Your task to perform on an android device: Search for razer deathadder on bestbuy.com, select the first entry, add it to the cart, then select checkout. Image 0: 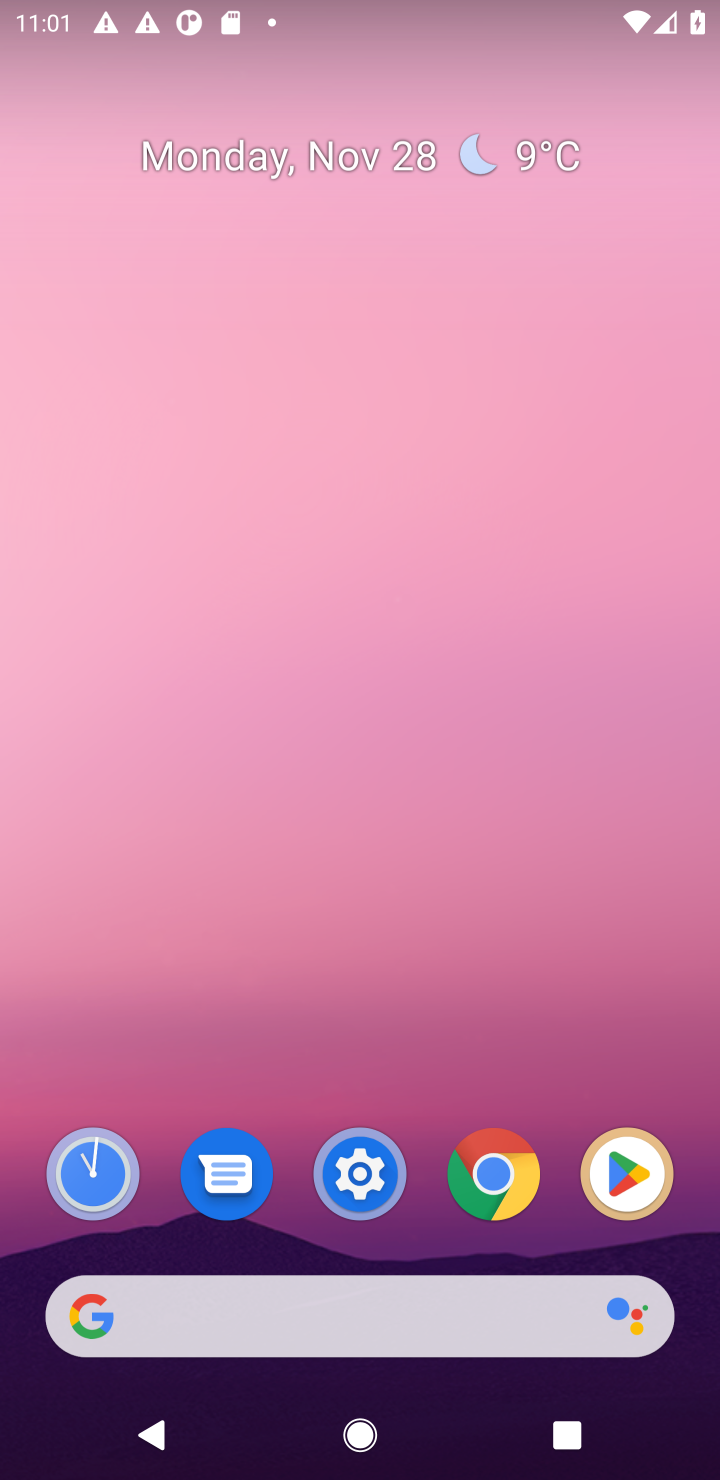
Step 0: press home button
Your task to perform on an android device: Search for razer deathadder on bestbuy.com, select the first entry, add it to the cart, then select checkout. Image 1: 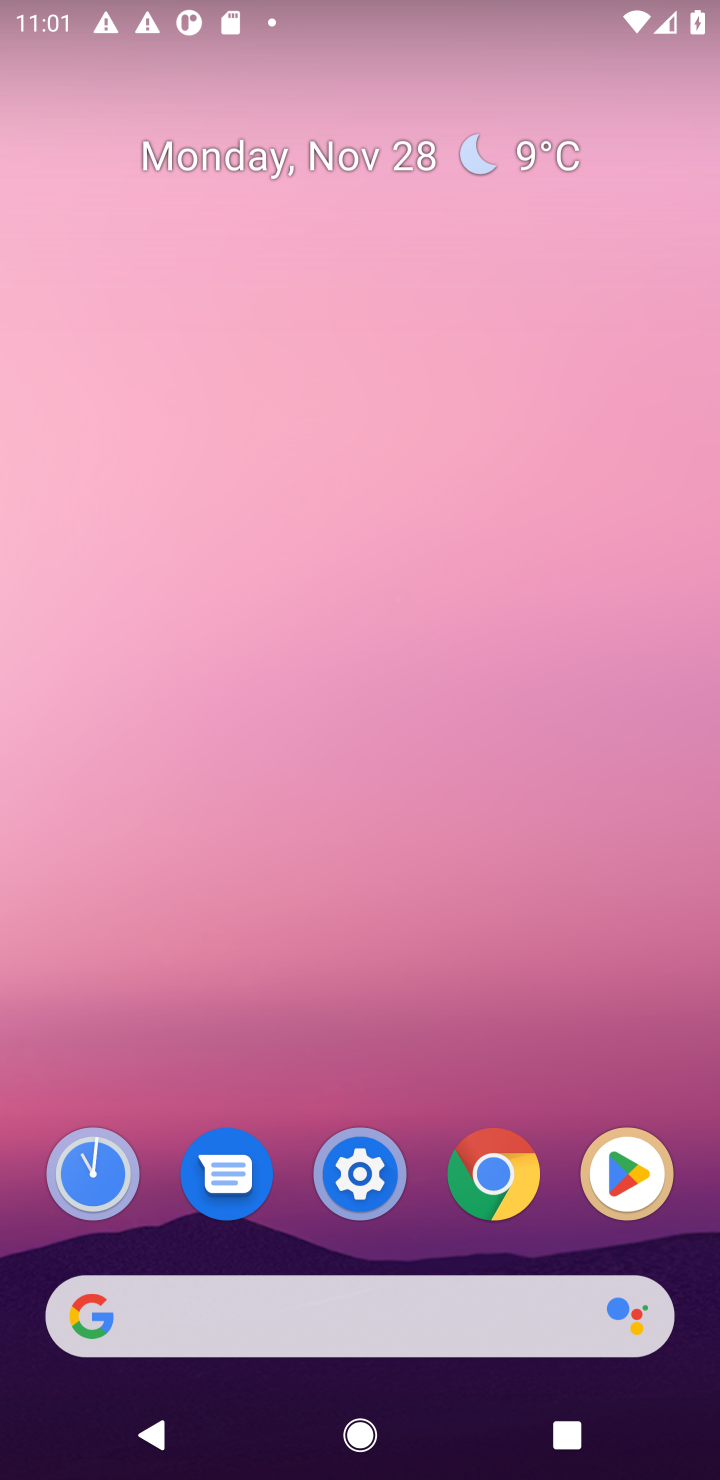
Step 1: click (398, 1277)
Your task to perform on an android device: Search for razer deathadder on bestbuy.com, select the first entry, add it to the cart, then select checkout. Image 2: 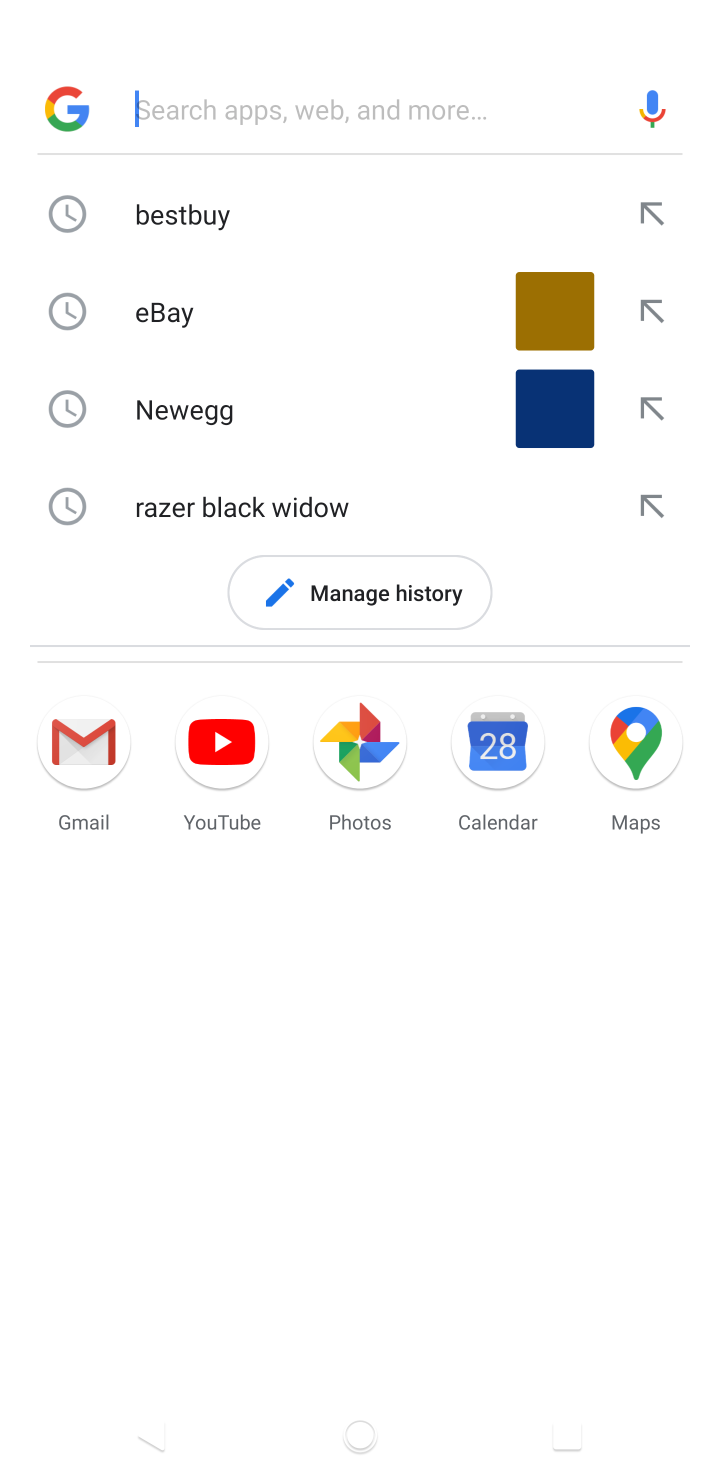
Step 2: type "target"
Your task to perform on an android device: Search for razer deathadder on bestbuy.com, select the first entry, add it to the cart, then select checkout. Image 3: 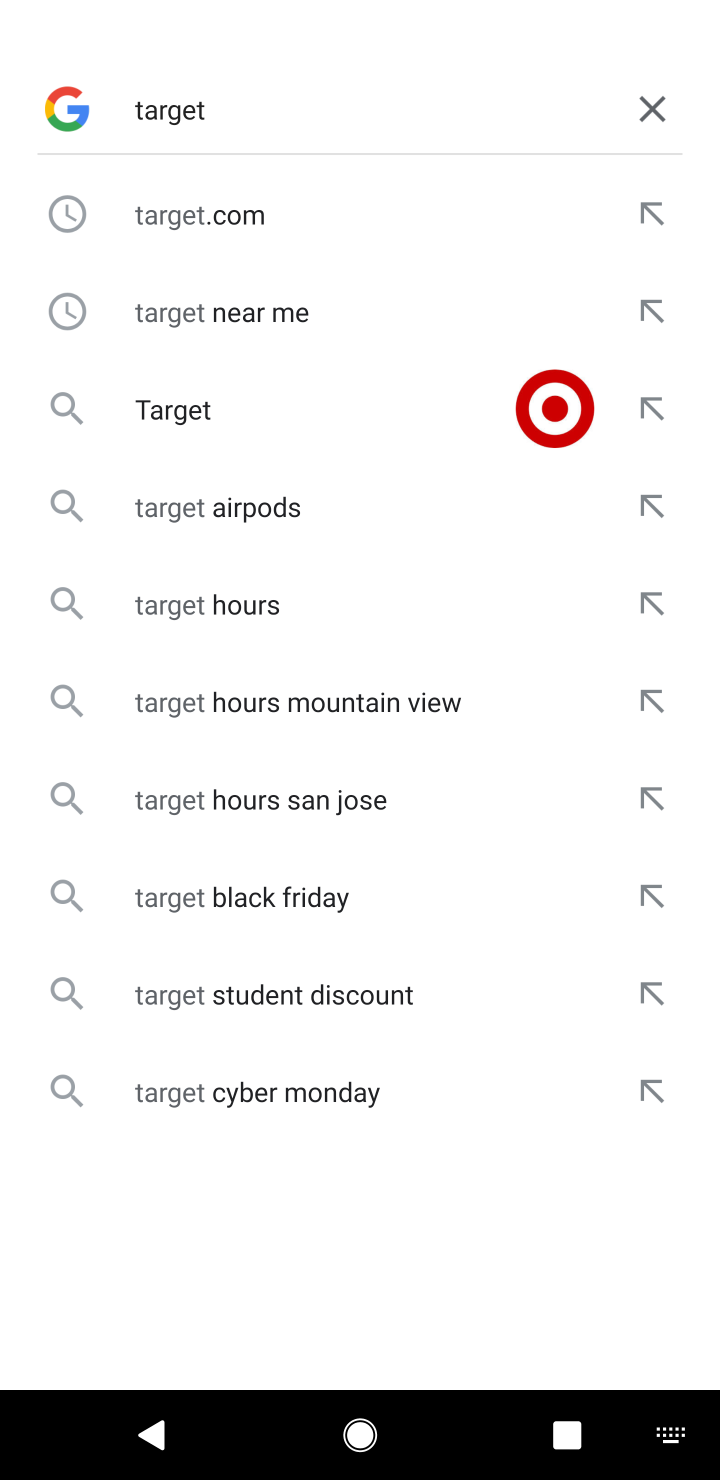
Step 3: type ".com"
Your task to perform on an android device: Search for razer deathadder on bestbuy.com, select the first entry, add it to the cart, then select checkout. Image 4: 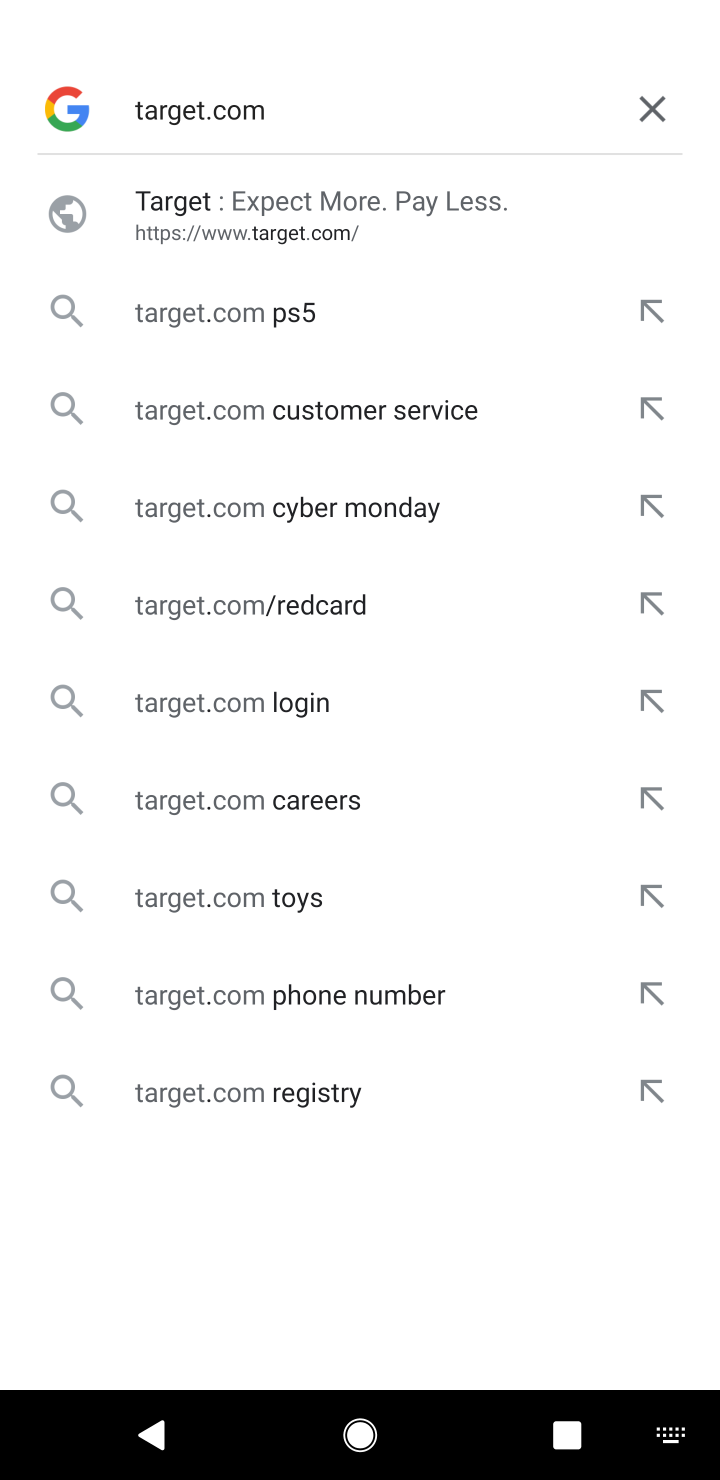
Step 4: click (244, 204)
Your task to perform on an android device: Search for razer deathadder on bestbuy.com, select the first entry, add it to the cart, then select checkout. Image 5: 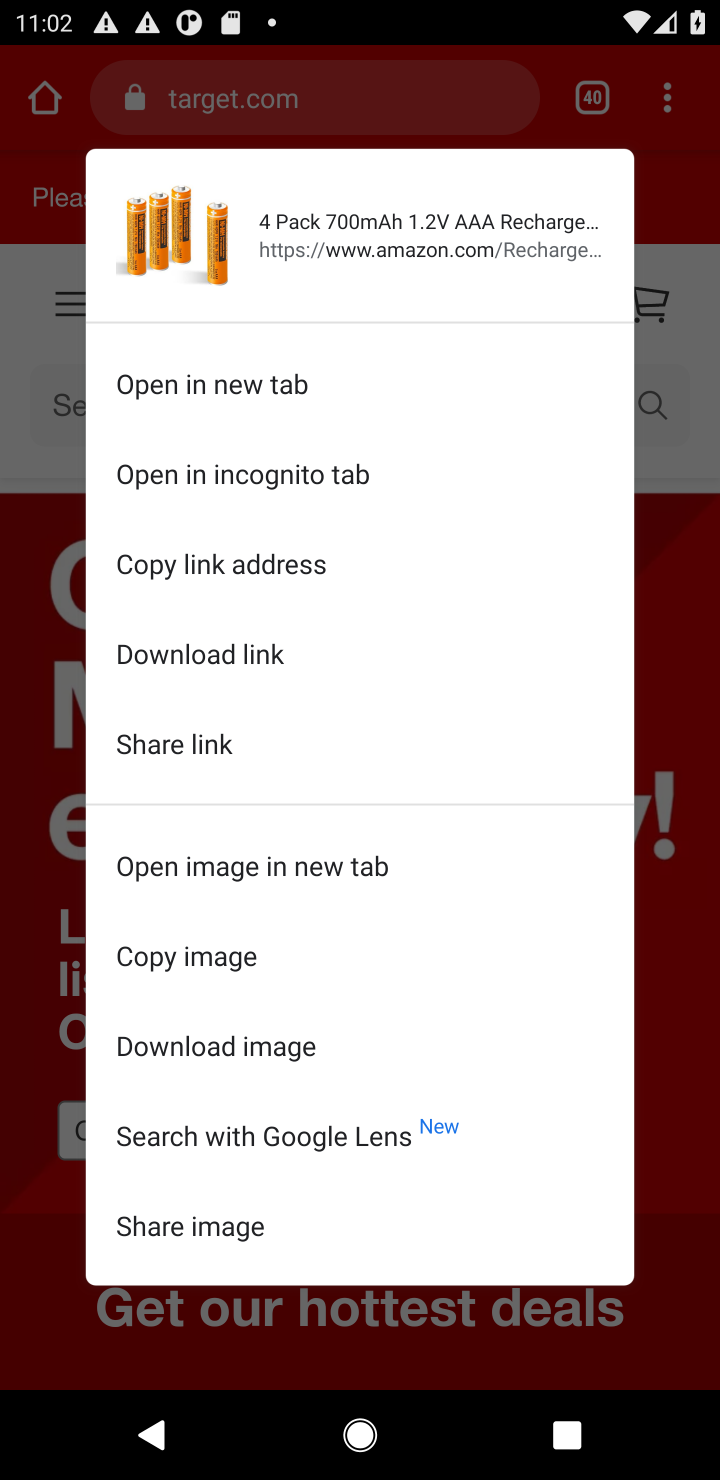
Step 5: task complete